Your task to perform on an android device: change the clock style Image 0: 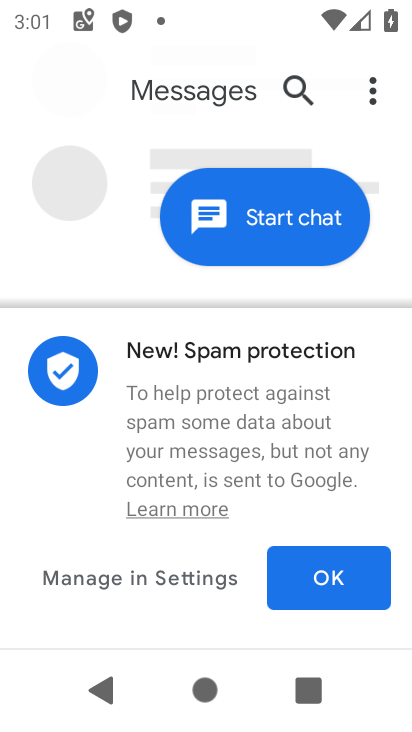
Step 0: press home button
Your task to perform on an android device: change the clock style Image 1: 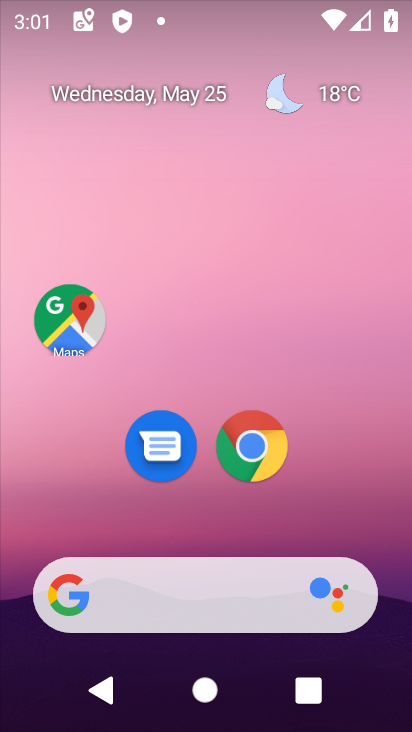
Step 1: drag from (241, 571) to (290, 61)
Your task to perform on an android device: change the clock style Image 2: 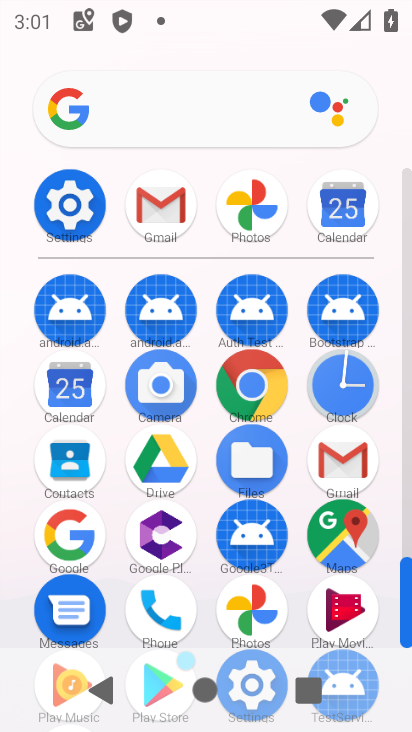
Step 2: click (322, 385)
Your task to perform on an android device: change the clock style Image 3: 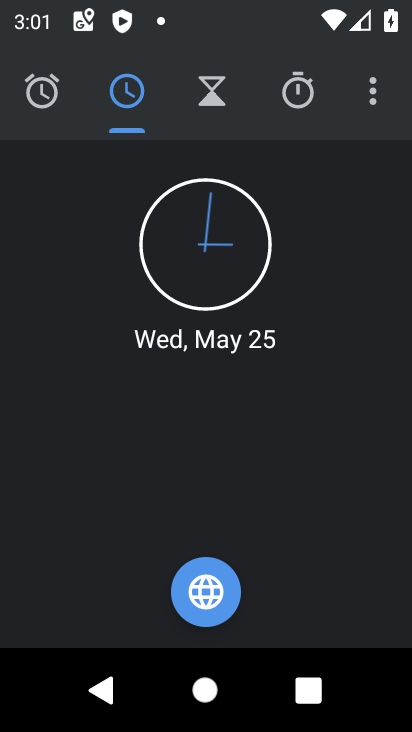
Step 3: click (367, 86)
Your task to perform on an android device: change the clock style Image 4: 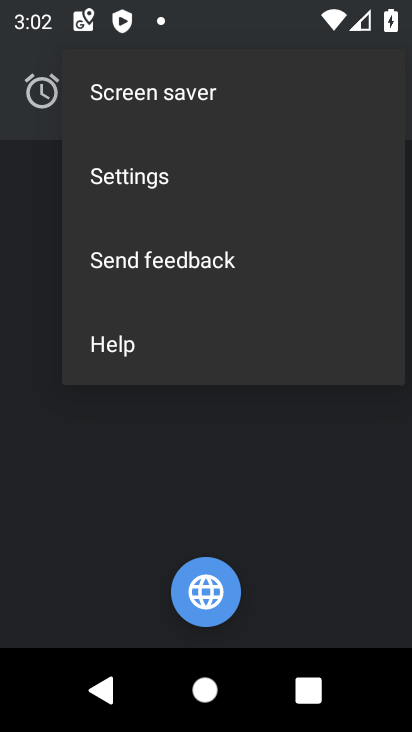
Step 4: click (160, 175)
Your task to perform on an android device: change the clock style Image 5: 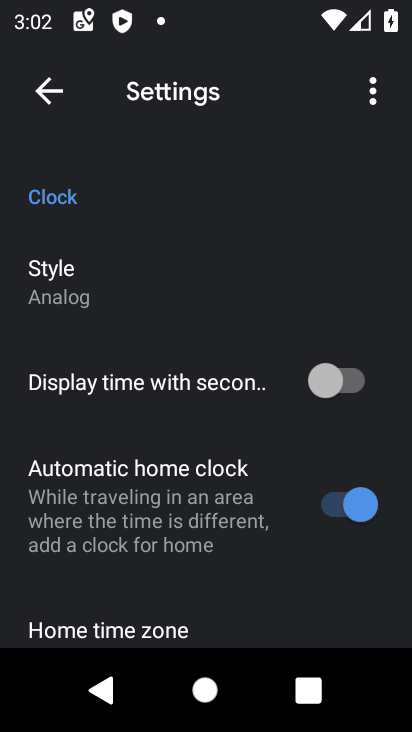
Step 5: click (109, 301)
Your task to perform on an android device: change the clock style Image 6: 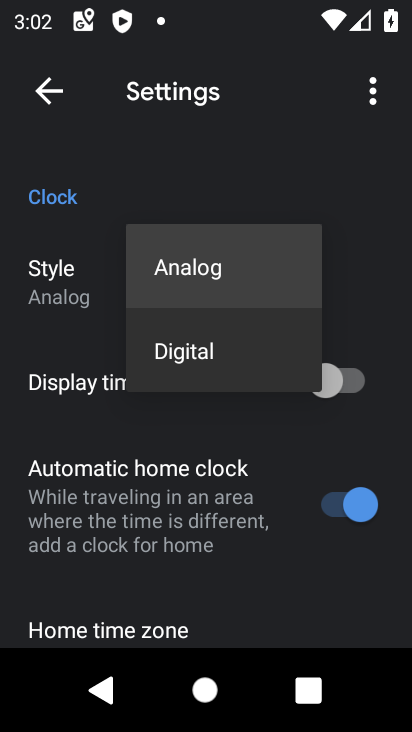
Step 6: click (184, 346)
Your task to perform on an android device: change the clock style Image 7: 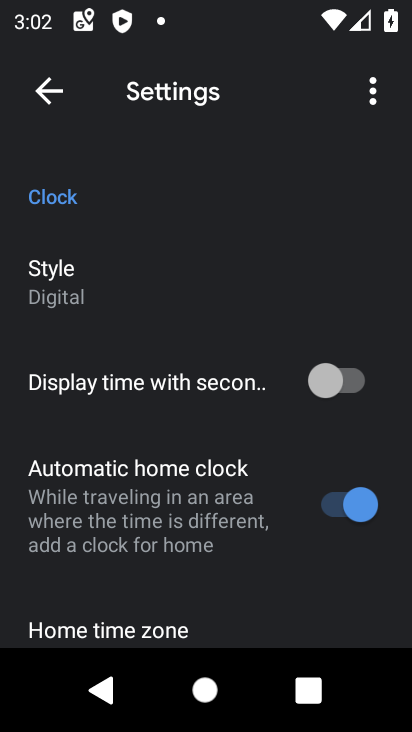
Step 7: task complete